Your task to perform on an android device: See recent photos Image 0: 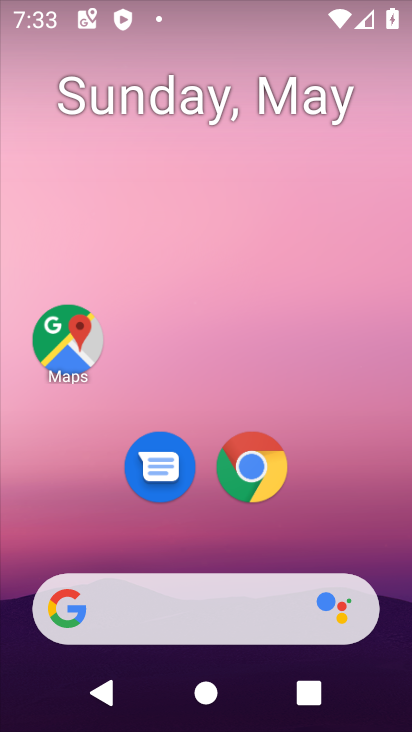
Step 0: press home button
Your task to perform on an android device: See recent photos Image 1: 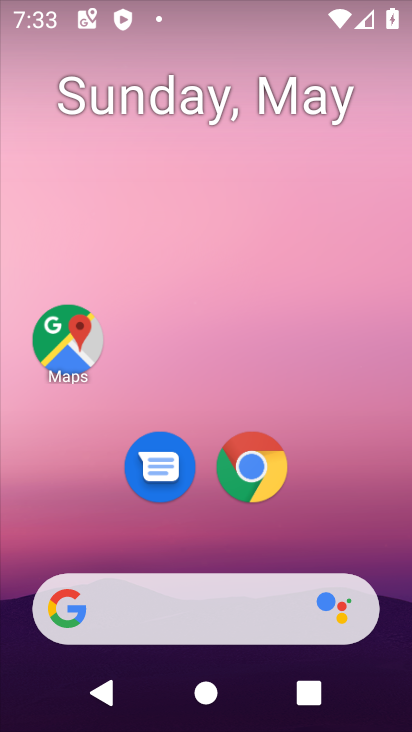
Step 1: drag from (44, 562) to (241, 91)
Your task to perform on an android device: See recent photos Image 2: 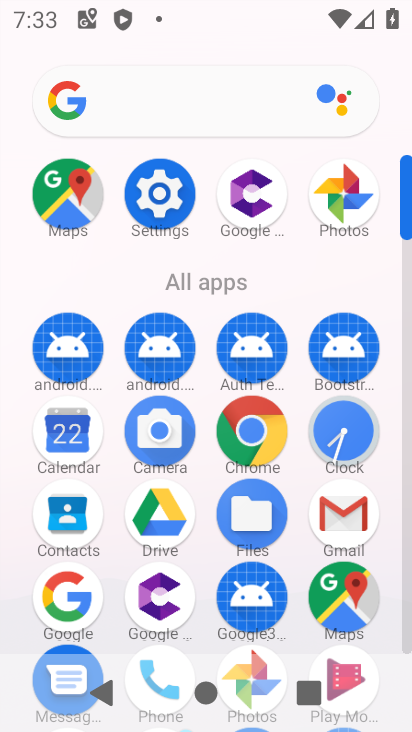
Step 2: click (325, 179)
Your task to perform on an android device: See recent photos Image 3: 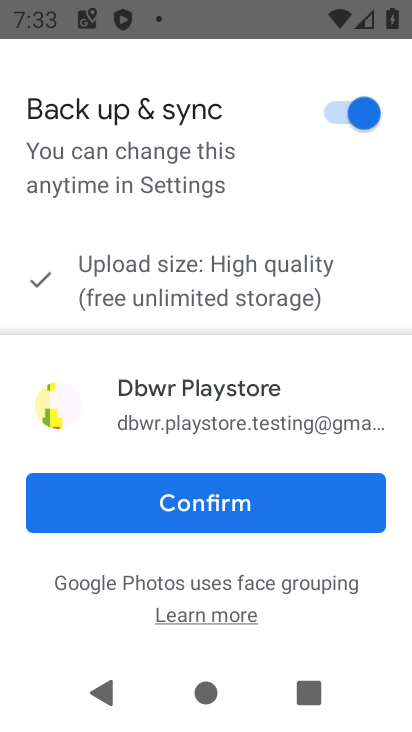
Step 3: click (185, 500)
Your task to perform on an android device: See recent photos Image 4: 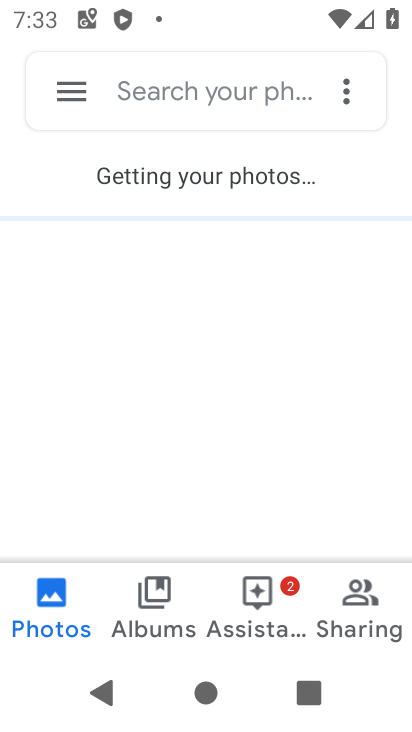
Step 4: task complete